Your task to perform on an android device: clear all cookies in the chrome app Image 0: 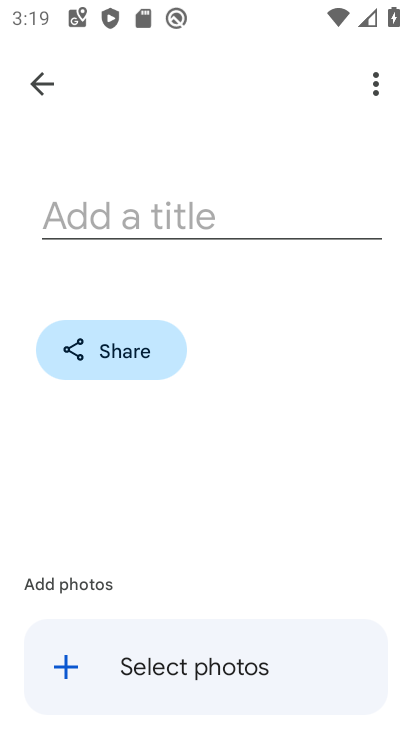
Step 0: press home button
Your task to perform on an android device: clear all cookies in the chrome app Image 1: 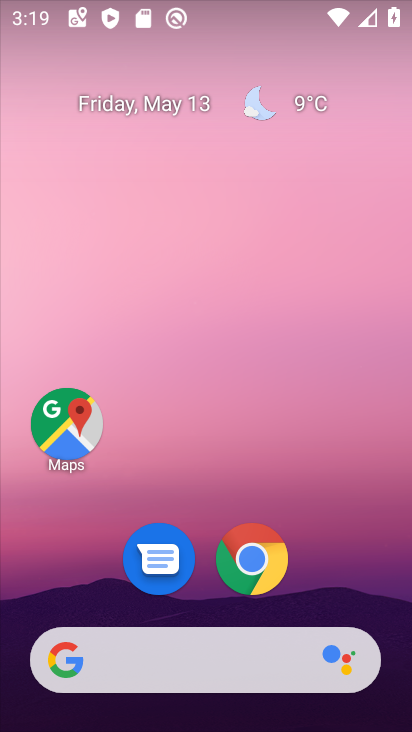
Step 1: click (249, 562)
Your task to perform on an android device: clear all cookies in the chrome app Image 2: 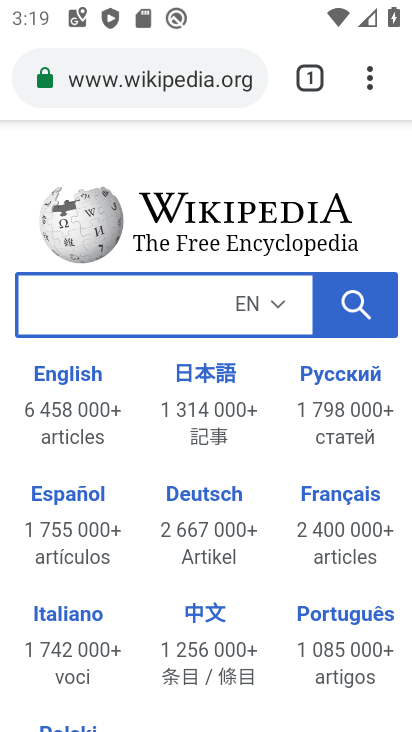
Step 2: click (372, 91)
Your task to perform on an android device: clear all cookies in the chrome app Image 3: 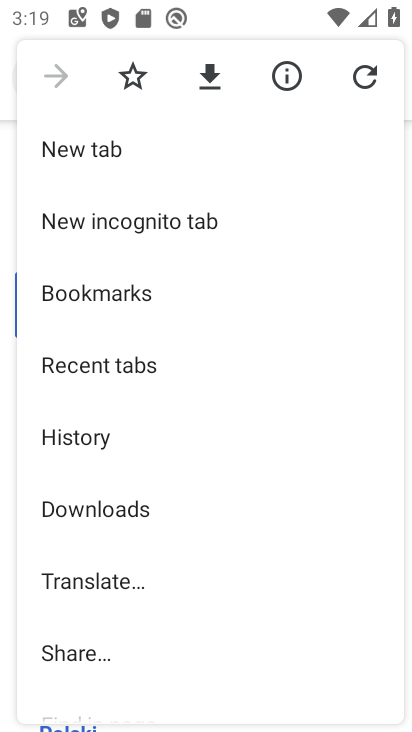
Step 3: drag from (184, 644) to (250, 159)
Your task to perform on an android device: clear all cookies in the chrome app Image 4: 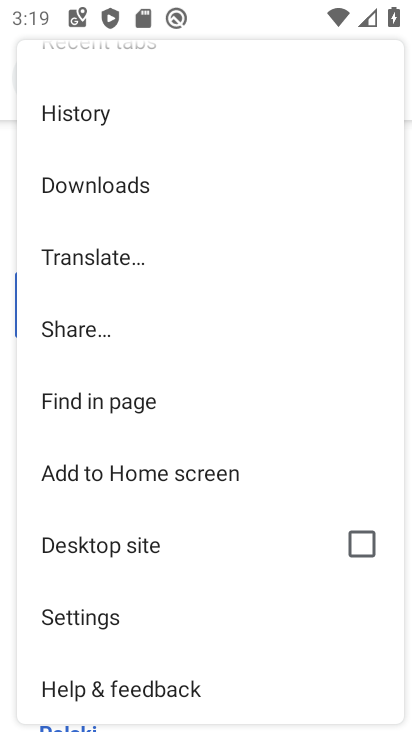
Step 4: click (86, 624)
Your task to perform on an android device: clear all cookies in the chrome app Image 5: 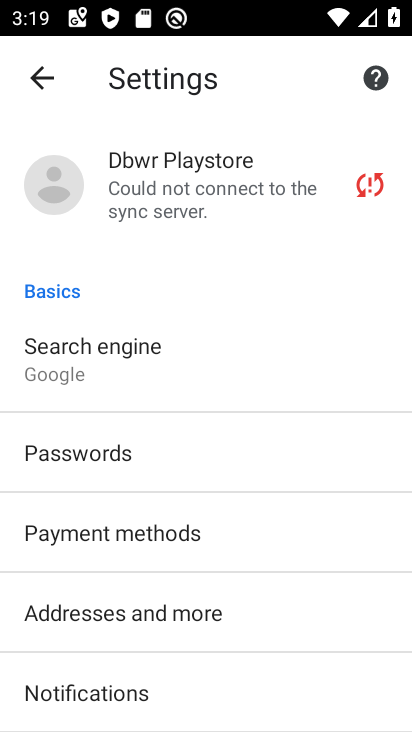
Step 5: press back button
Your task to perform on an android device: clear all cookies in the chrome app Image 6: 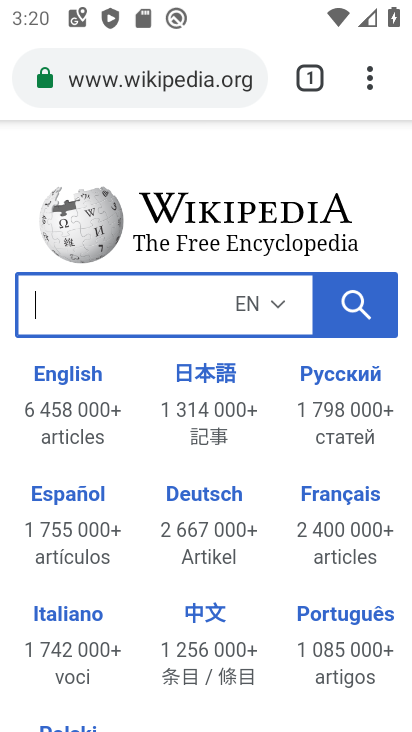
Step 6: click (372, 85)
Your task to perform on an android device: clear all cookies in the chrome app Image 7: 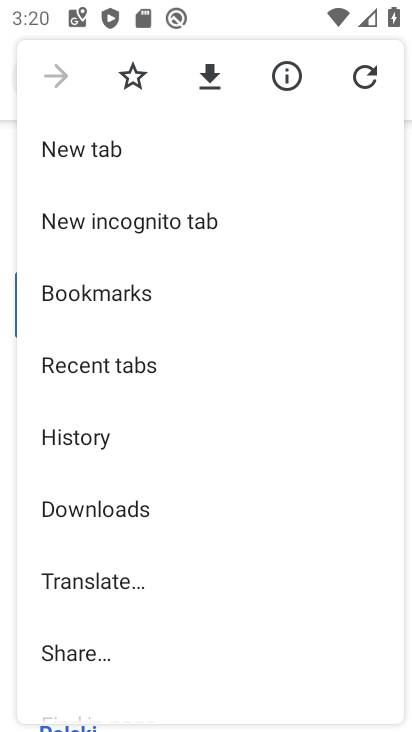
Step 7: drag from (181, 623) to (219, 439)
Your task to perform on an android device: clear all cookies in the chrome app Image 8: 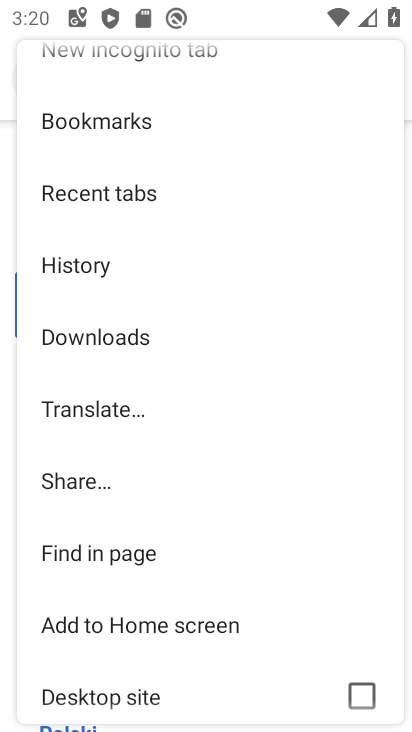
Step 8: click (79, 266)
Your task to perform on an android device: clear all cookies in the chrome app Image 9: 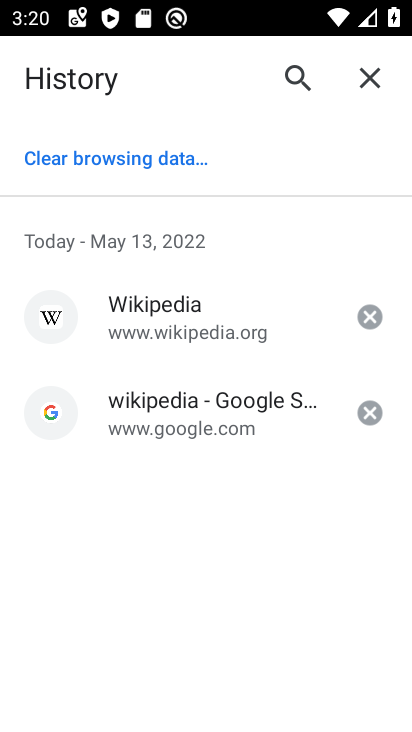
Step 9: click (107, 160)
Your task to perform on an android device: clear all cookies in the chrome app Image 10: 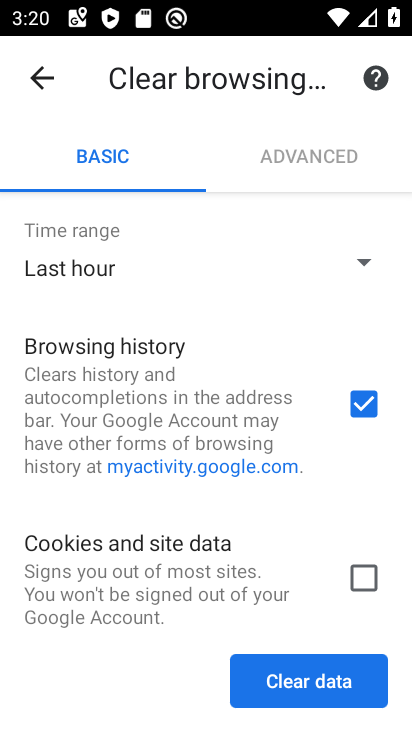
Step 10: drag from (290, 574) to (322, 334)
Your task to perform on an android device: clear all cookies in the chrome app Image 11: 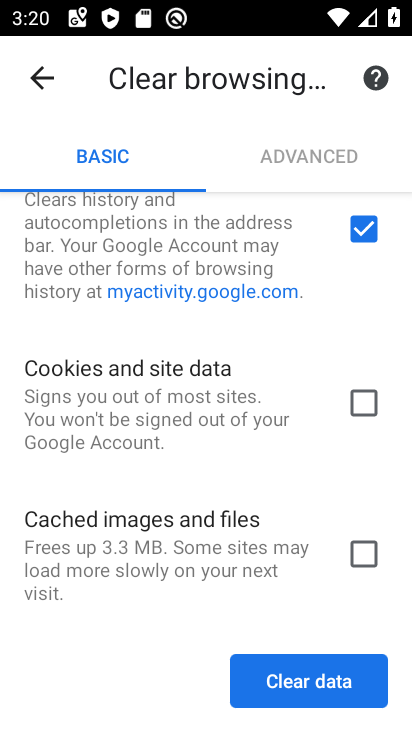
Step 11: click (359, 389)
Your task to perform on an android device: clear all cookies in the chrome app Image 12: 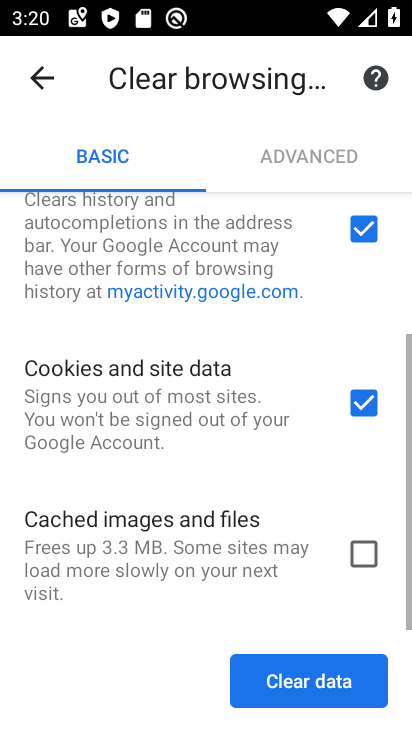
Step 12: click (355, 221)
Your task to perform on an android device: clear all cookies in the chrome app Image 13: 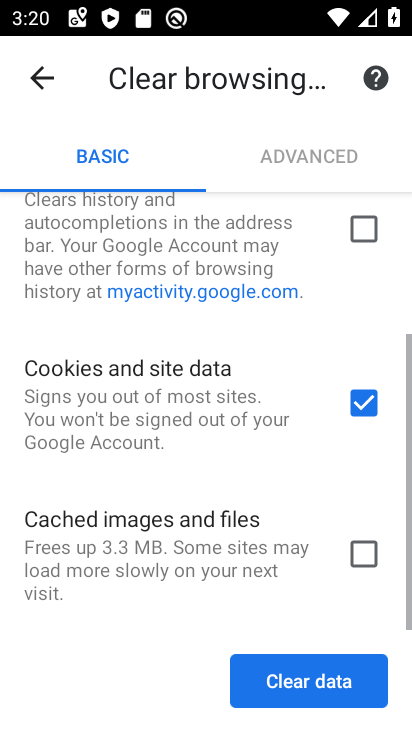
Step 13: click (298, 687)
Your task to perform on an android device: clear all cookies in the chrome app Image 14: 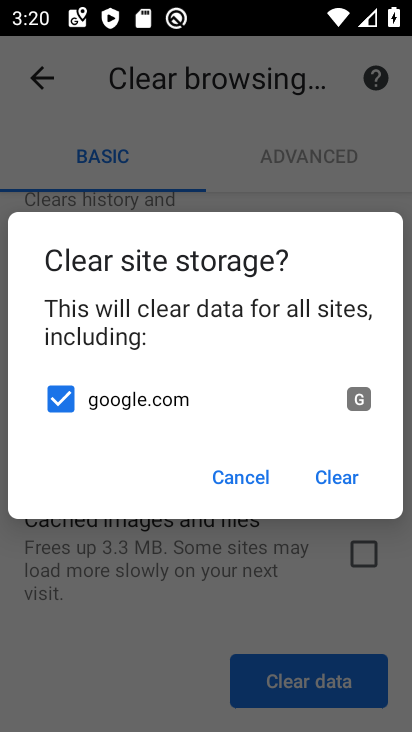
Step 14: click (327, 471)
Your task to perform on an android device: clear all cookies in the chrome app Image 15: 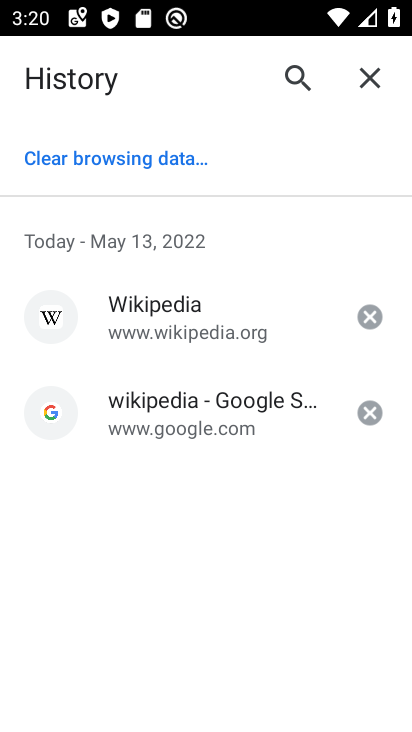
Step 15: task complete